Your task to perform on an android device: turn off translation in the chrome app Image 0: 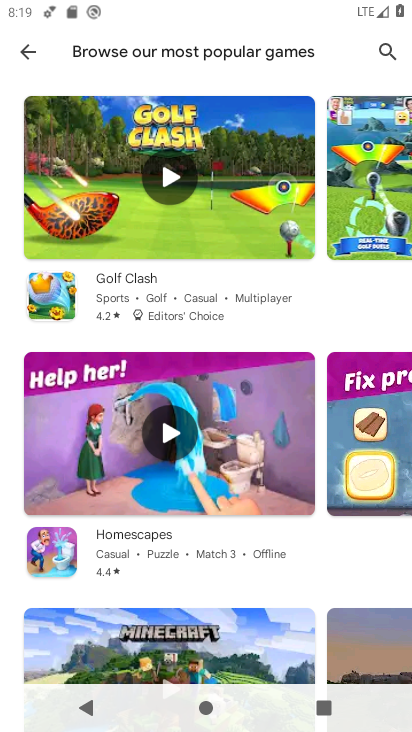
Step 0: press home button
Your task to perform on an android device: turn off translation in the chrome app Image 1: 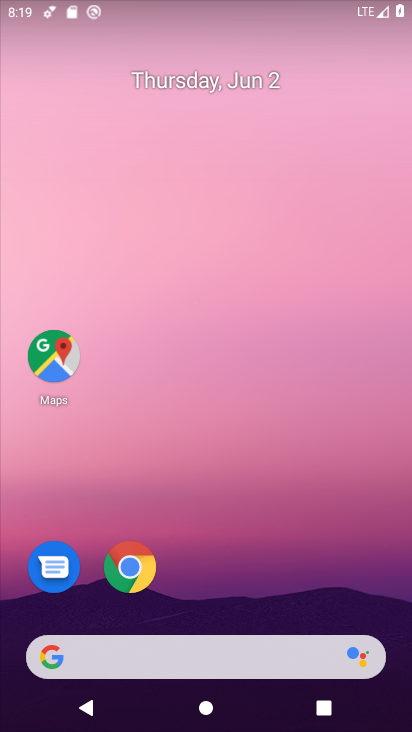
Step 1: click (111, 578)
Your task to perform on an android device: turn off translation in the chrome app Image 2: 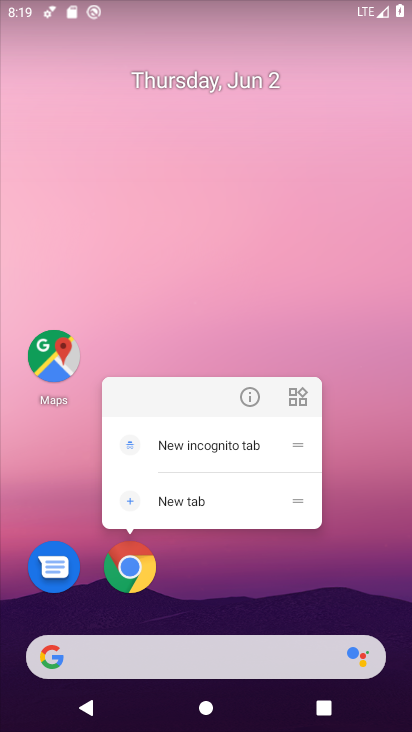
Step 2: click (138, 556)
Your task to perform on an android device: turn off translation in the chrome app Image 3: 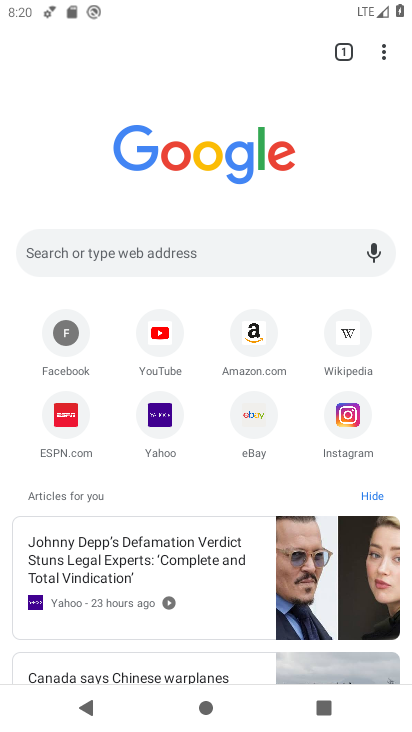
Step 3: drag from (390, 58) to (288, 433)
Your task to perform on an android device: turn off translation in the chrome app Image 4: 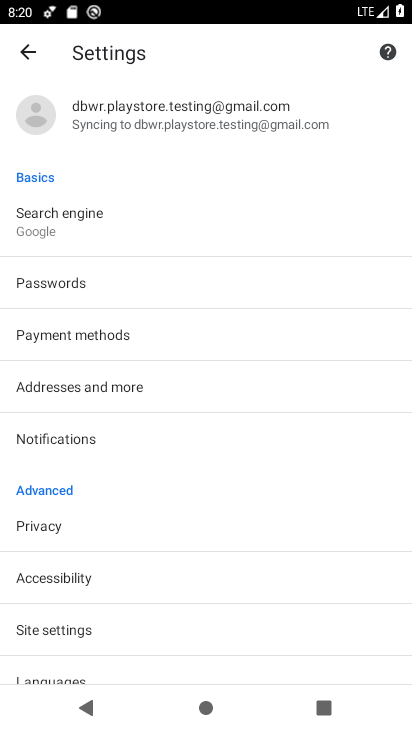
Step 4: drag from (150, 611) to (209, 395)
Your task to perform on an android device: turn off translation in the chrome app Image 5: 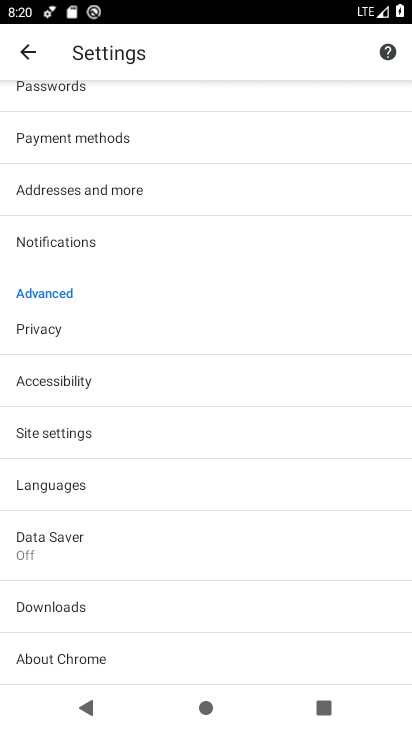
Step 5: click (111, 488)
Your task to perform on an android device: turn off translation in the chrome app Image 6: 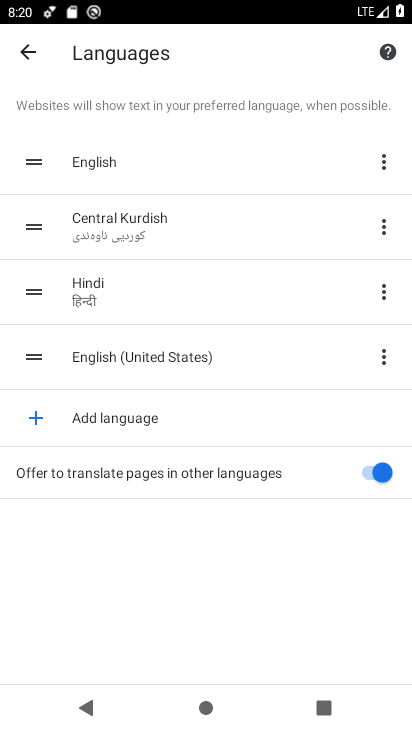
Step 6: click (350, 468)
Your task to perform on an android device: turn off translation in the chrome app Image 7: 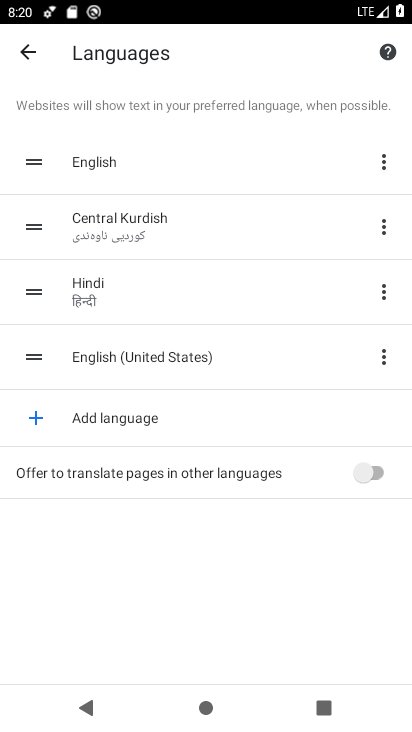
Step 7: task complete